Your task to perform on an android device: turn on wifi Image 0: 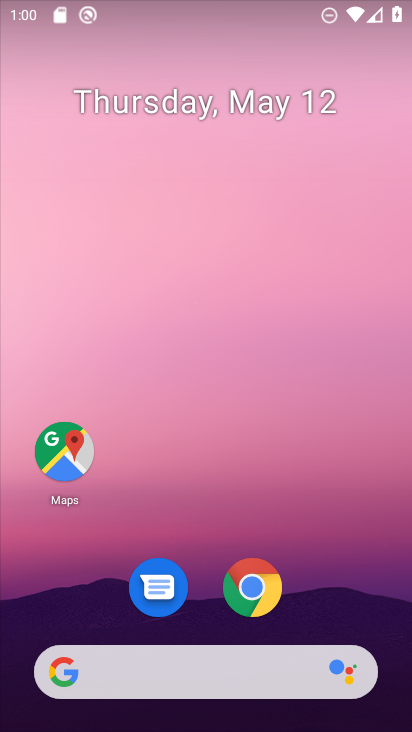
Step 0: drag from (331, 548) to (219, 62)
Your task to perform on an android device: turn on wifi Image 1: 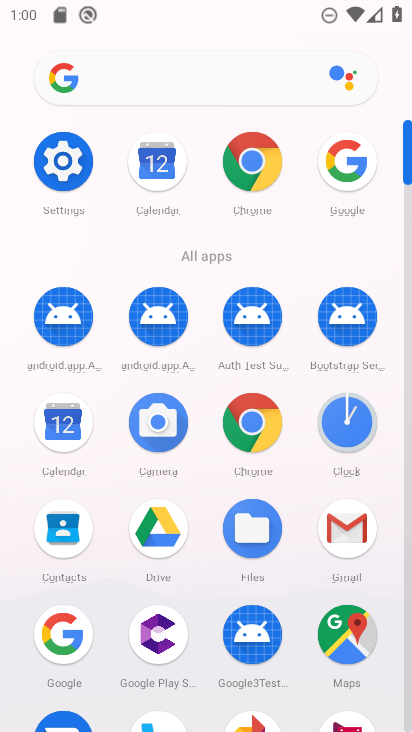
Step 1: click (63, 160)
Your task to perform on an android device: turn on wifi Image 2: 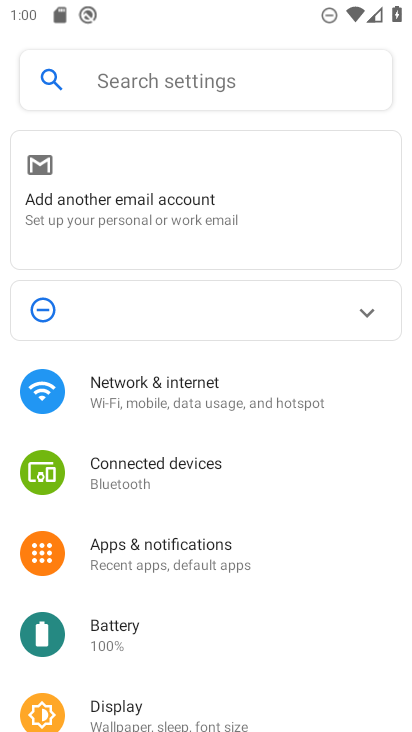
Step 2: click (154, 386)
Your task to perform on an android device: turn on wifi Image 3: 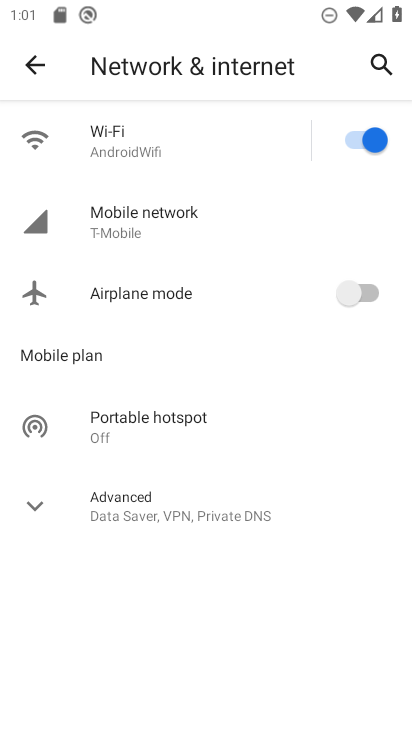
Step 3: task complete